Your task to perform on an android device: turn on location history Image 0: 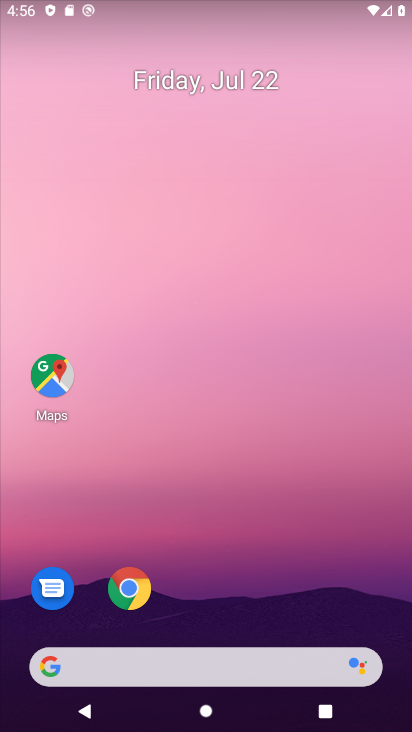
Step 0: drag from (215, 522) to (265, 33)
Your task to perform on an android device: turn on location history Image 1: 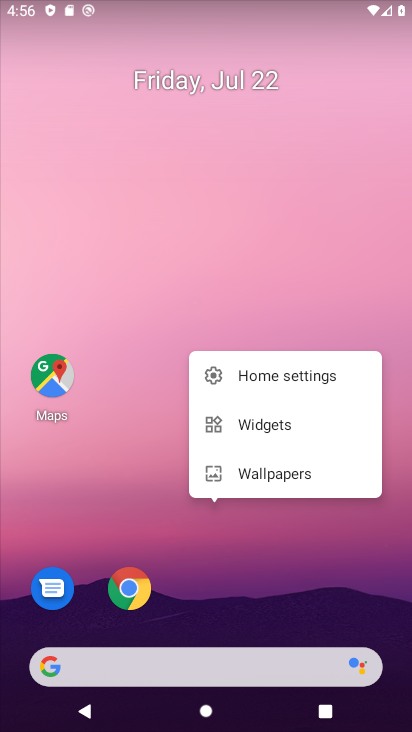
Step 1: click (236, 248)
Your task to perform on an android device: turn on location history Image 2: 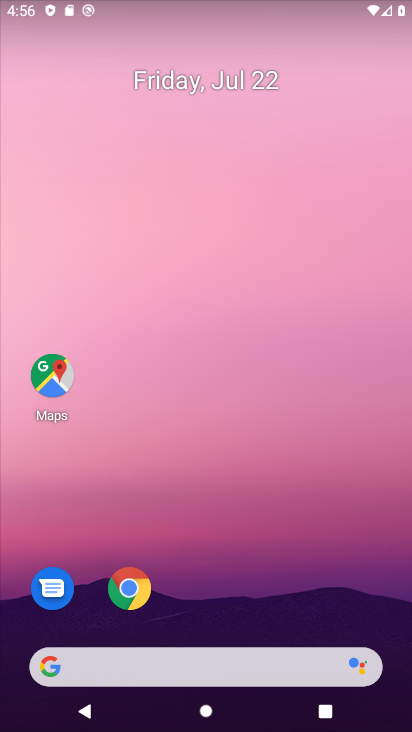
Step 2: drag from (251, 439) to (277, 19)
Your task to perform on an android device: turn on location history Image 3: 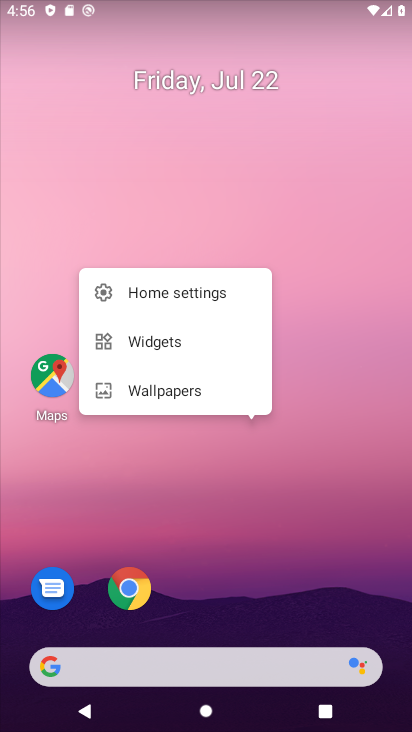
Step 3: click (233, 437)
Your task to perform on an android device: turn on location history Image 4: 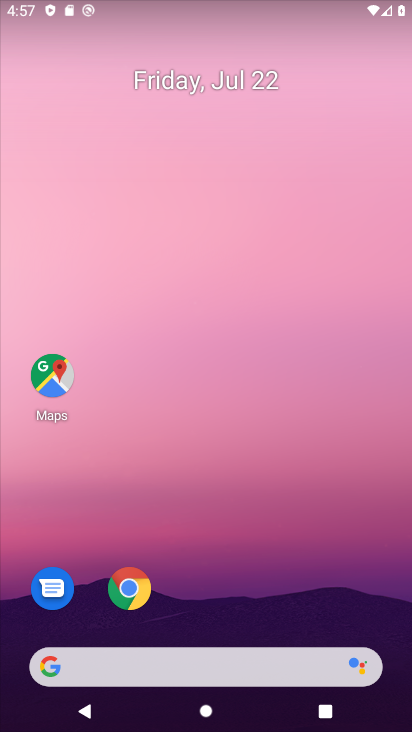
Step 4: drag from (245, 514) to (250, 39)
Your task to perform on an android device: turn on location history Image 5: 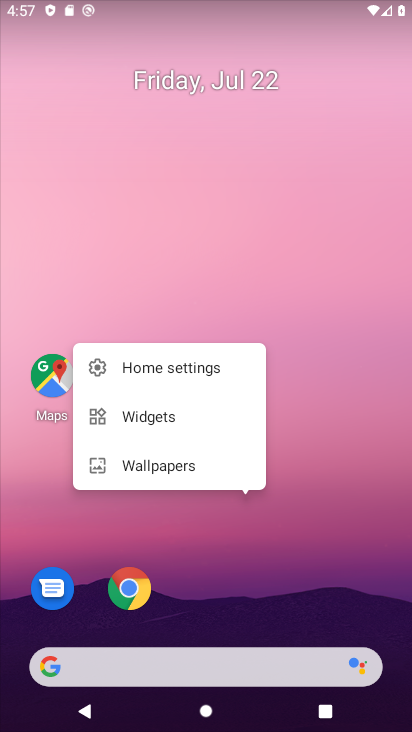
Step 5: click (347, 539)
Your task to perform on an android device: turn on location history Image 6: 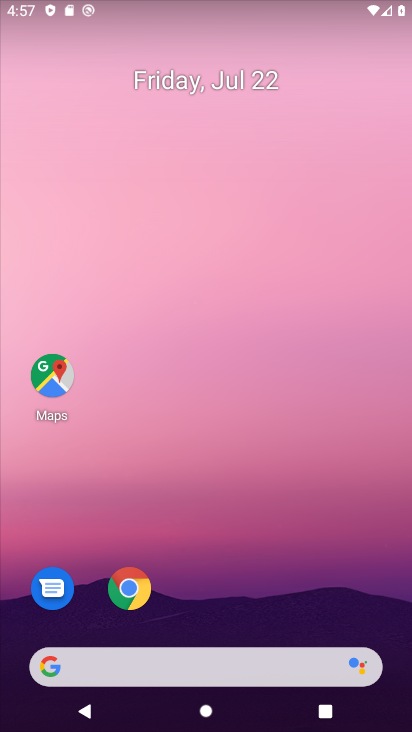
Step 6: drag from (347, 539) to (329, 165)
Your task to perform on an android device: turn on location history Image 7: 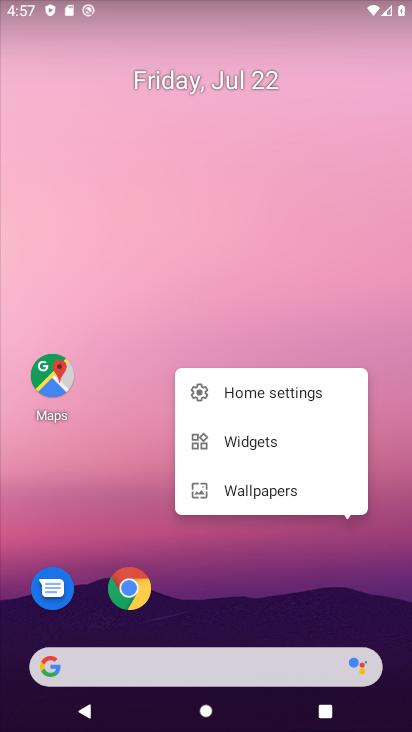
Step 7: click (303, 284)
Your task to perform on an android device: turn on location history Image 8: 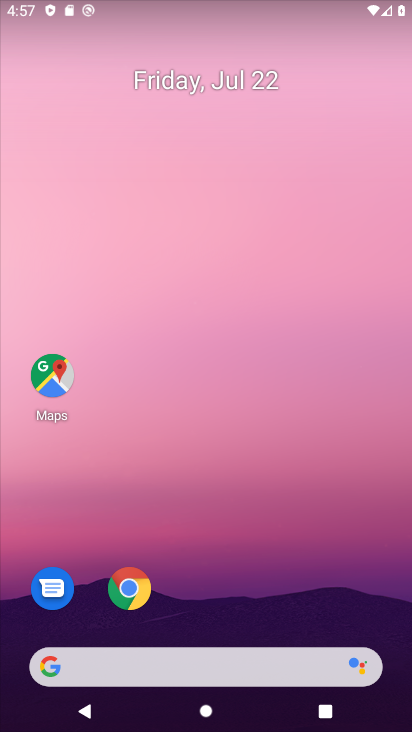
Step 8: drag from (278, 417) to (277, 256)
Your task to perform on an android device: turn on location history Image 9: 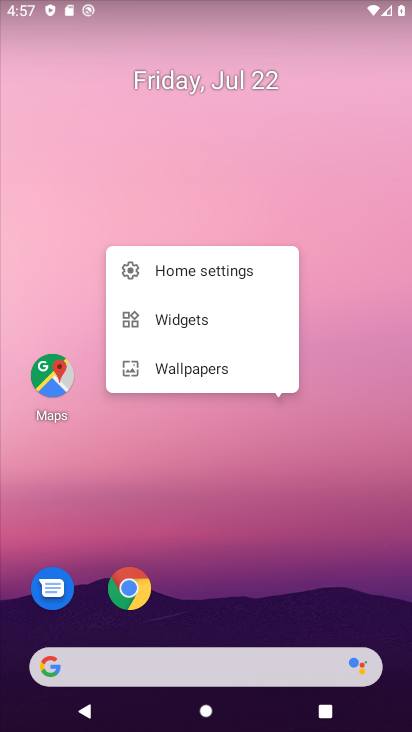
Step 9: click (300, 475)
Your task to perform on an android device: turn on location history Image 10: 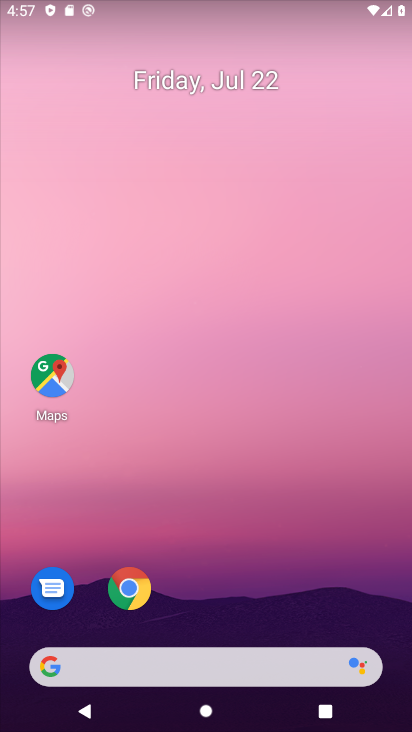
Step 10: drag from (278, 521) to (287, 182)
Your task to perform on an android device: turn on location history Image 11: 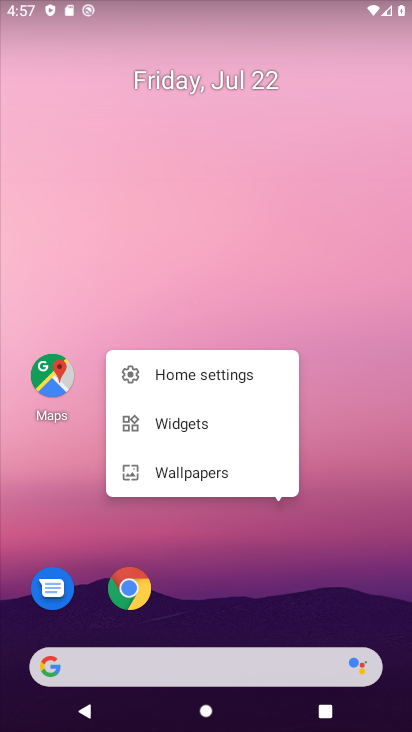
Step 11: click (333, 566)
Your task to perform on an android device: turn on location history Image 12: 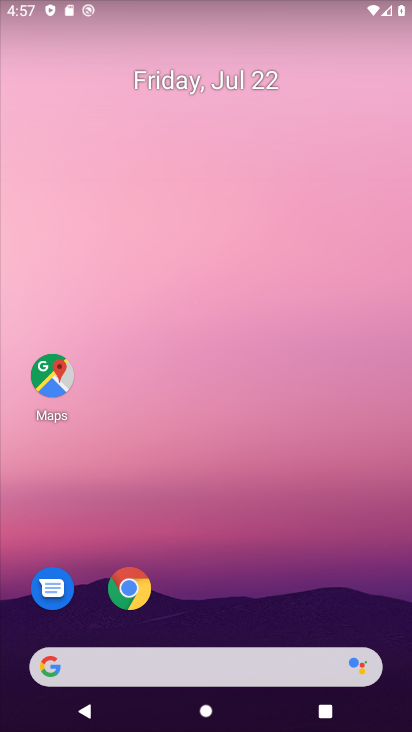
Step 12: drag from (314, 427) to (283, 148)
Your task to perform on an android device: turn on location history Image 13: 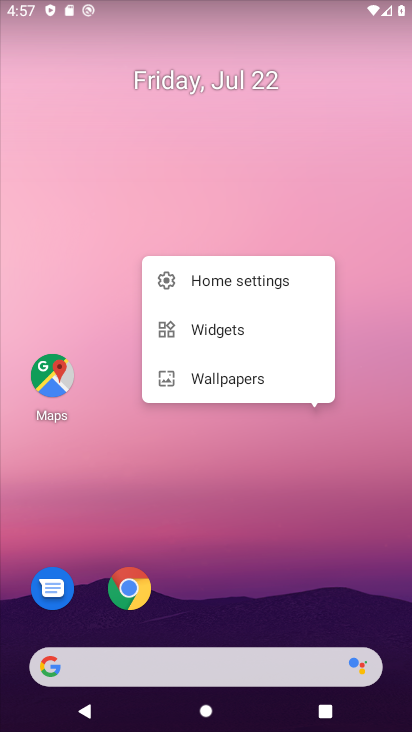
Step 13: click (234, 551)
Your task to perform on an android device: turn on location history Image 14: 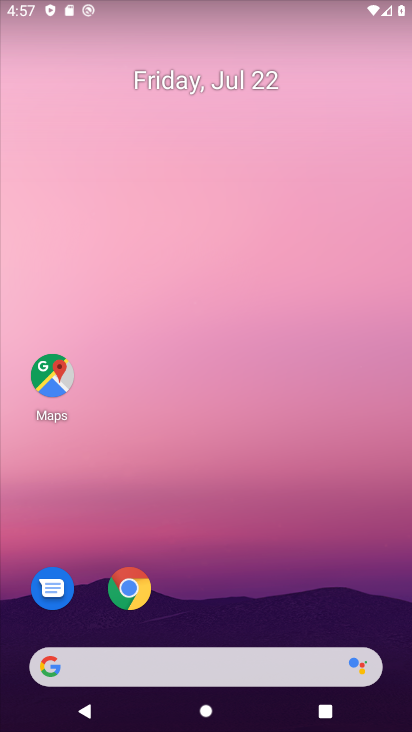
Step 14: drag from (184, 448) to (236, 184)
Your task to perform on an android device: turn on location history Image 15: 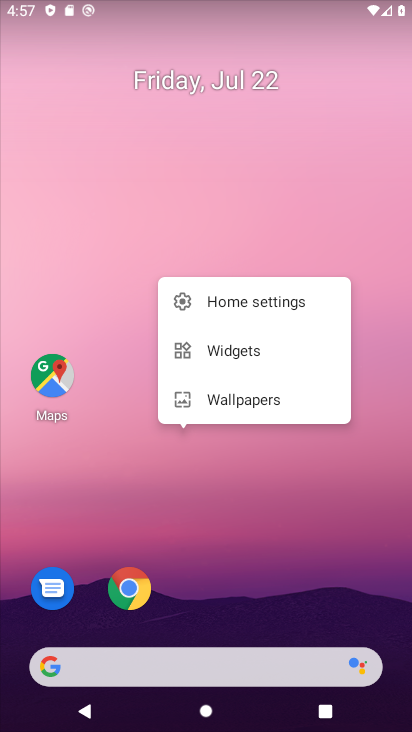
Step 15: click (276, 542)
Your task to perform on an android device: turn on location history Image 16: 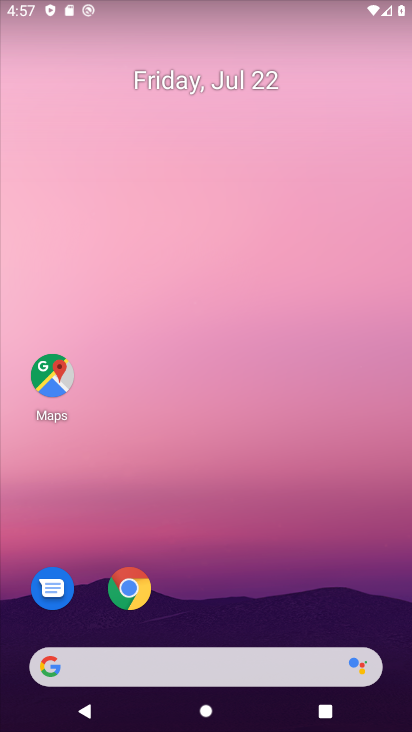
Step 16: drag from (260, 401) to (281, 35)
Your task to perform on an android device: turn on location history Image 17: 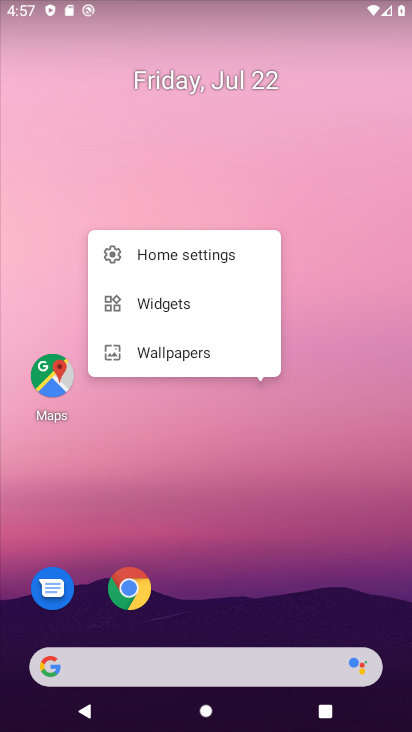
Step 17: click (303, 402)
Your task to perform on an android device: turn on location history Image 18: 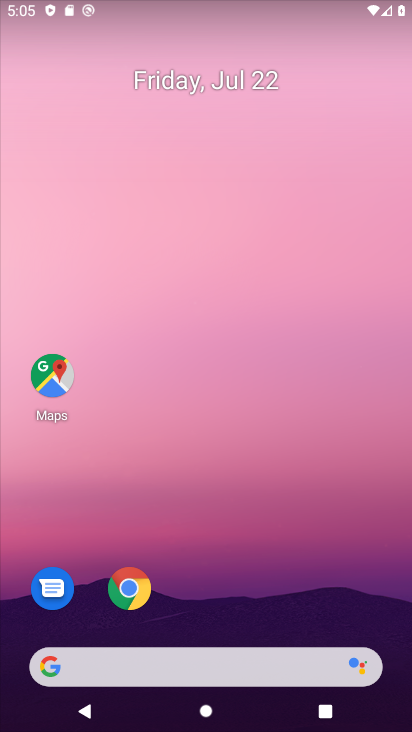
Step 18: drag from (295, 481) to (305, 259)
Your task to perform on an android device: turn on location history Image 19: 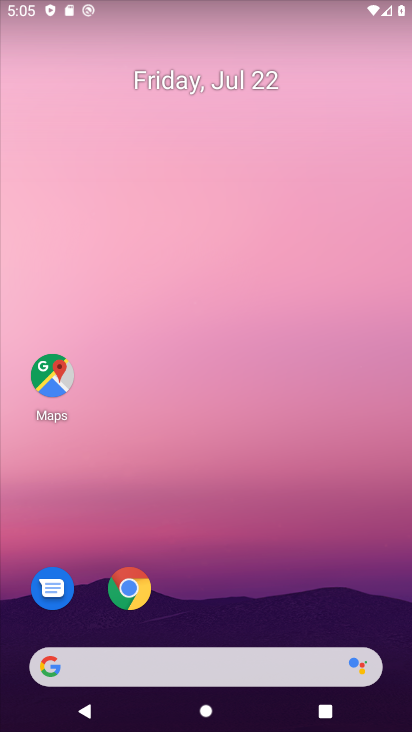
Step 19: drag from (271, 577) to (300, 216)
Your task to perform on an android device: turn on location history Image 20: 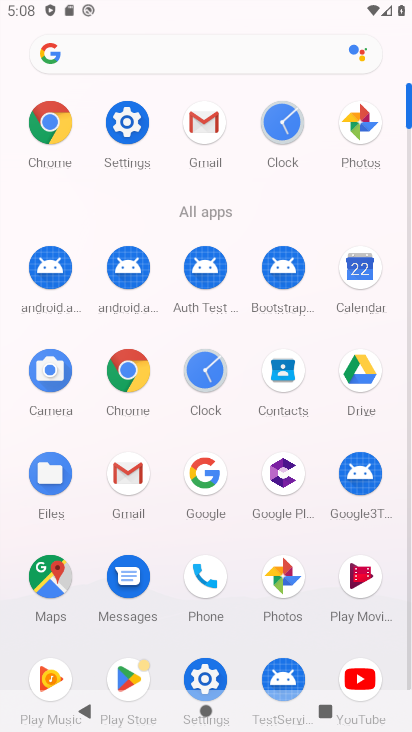
Step 20: click (204, 669)
Your task to perform on an android device: turn on location history Image 21: 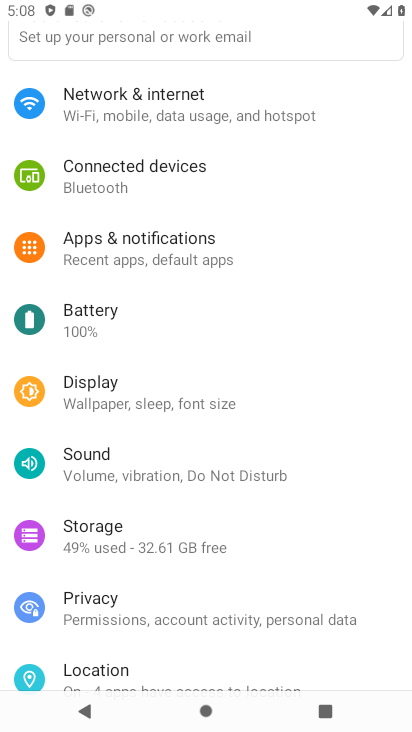
Step 21: click (102, 669)
Your task to perform on an android device: turn on location history Image 22: 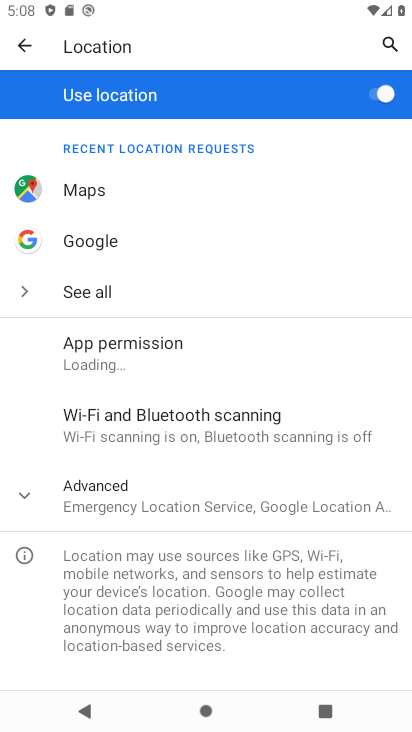
Step 22: task complete